Your task to perform on an android device: turn off smart reply in the gmail app Image 0: 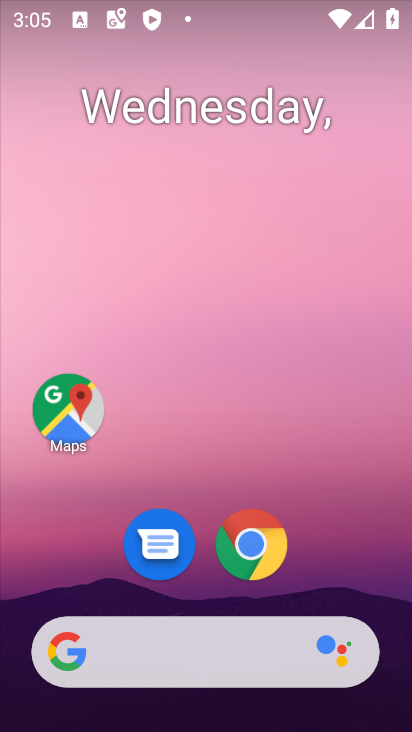
Step 0: drag from (391, 623) to (320, 109)
Your task to perform on an android device: turn off smart reply in the gmail app Image 1: 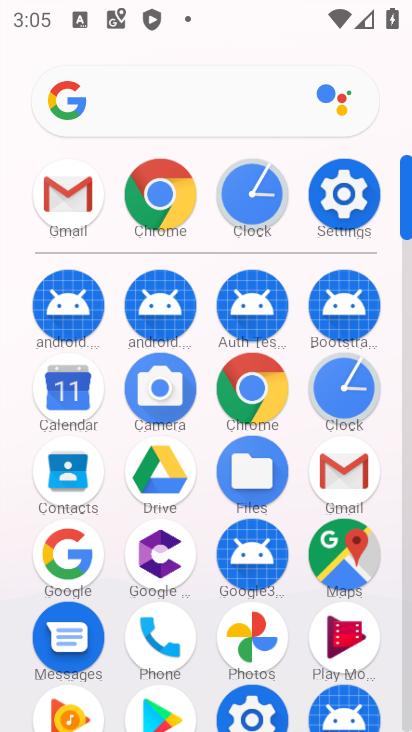
Step 1: click (407, 702)
Your task to perform on an android device: turn off smart reply in the gmail app Image 2: 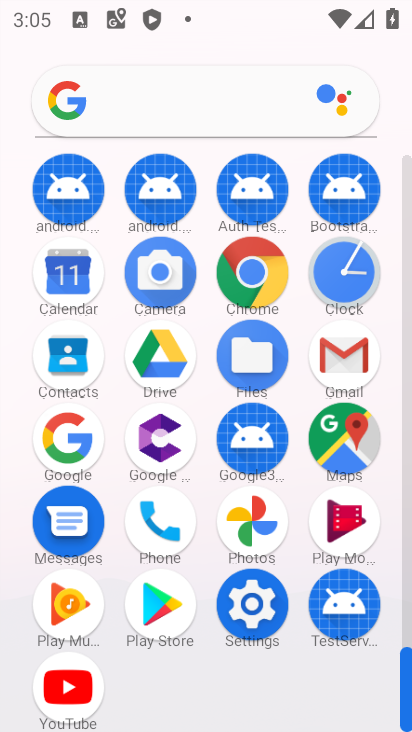
Step 2: click (342, 350)
Your task to perform on an android device: turn off smart reply in the gmail app Image 3: 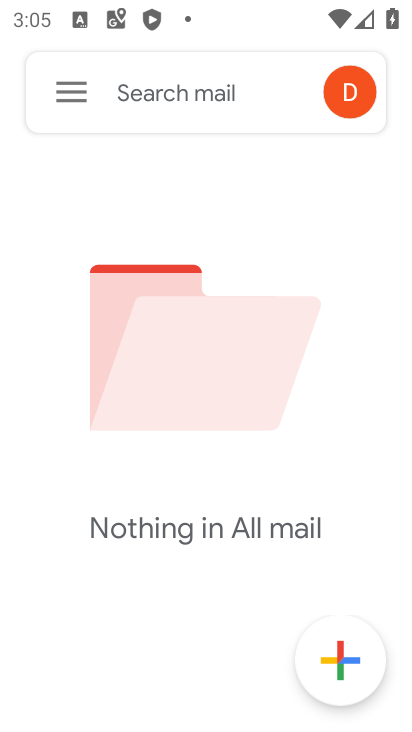
Step 3: click (73, 87)
Your task to perform on an android device: turn off smart reply in the gmail app Image 4: 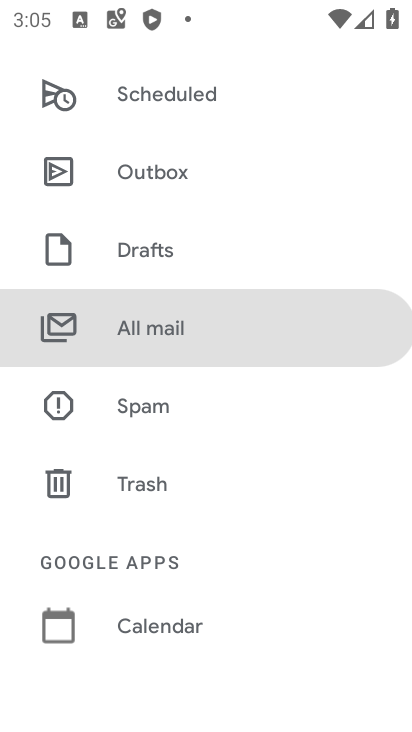
Step 4: drag from (252, 621) to (277, 165)
Your task to perform on an android device: turn off smart reply in the gmail app Image 5: 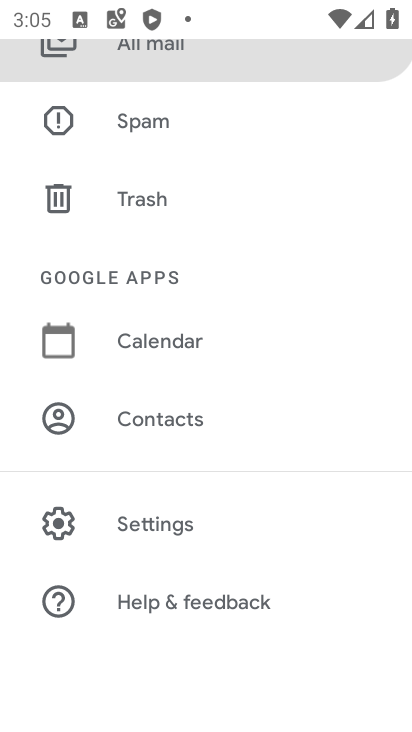
Step 5: click (146, 524)
Your task to perform on an android device: turn off smart reply in the gmail app Image 6: 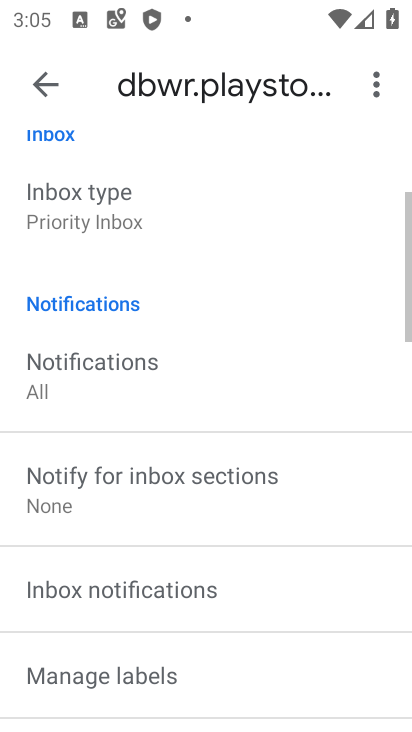
Step 6: drag from (302, 611) to (327, 188)
Your task to perform on an android device: turn off smart reply in the gmail app Image 7: 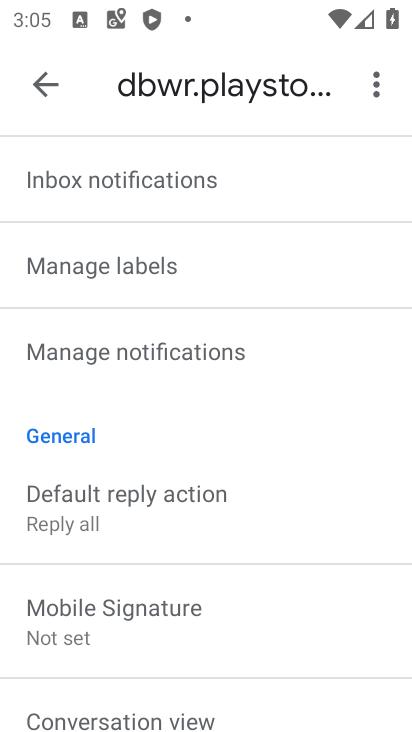
Step 7: drag from (247, 669) to (277, 239)
Your task to perform on an android device: turn off smart reply in the gmail app Image 8: 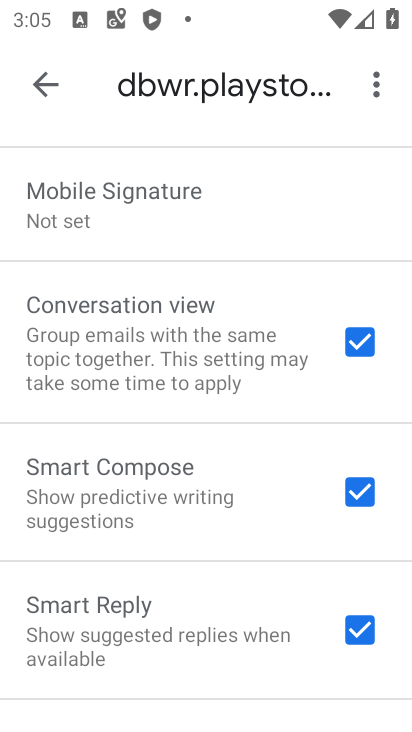
Step 8: drag from (262, 568) to (273, 283)
Your task to perform on an android device: turn off smart reply in the gmail app Image 9: 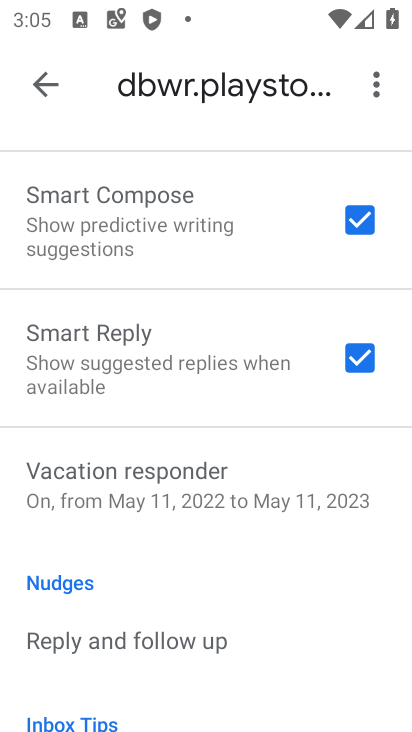
Step 9: click (364, 356)
Your task to perform on an android device: turn off smart reply in the gmail app Image 10: 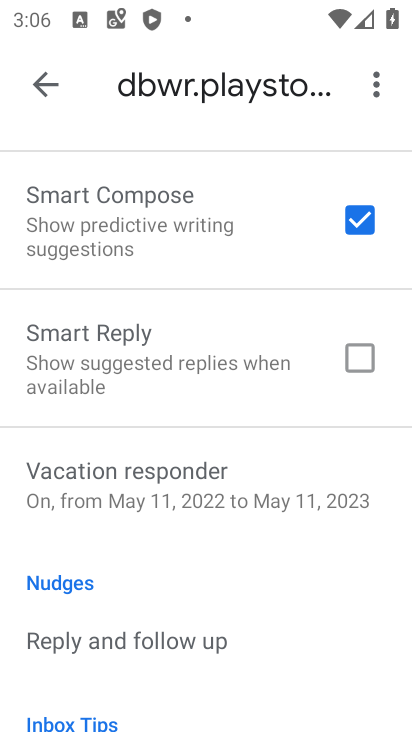
Step 10: task complete